Your task to perform on an android device: check battery use Image 0: 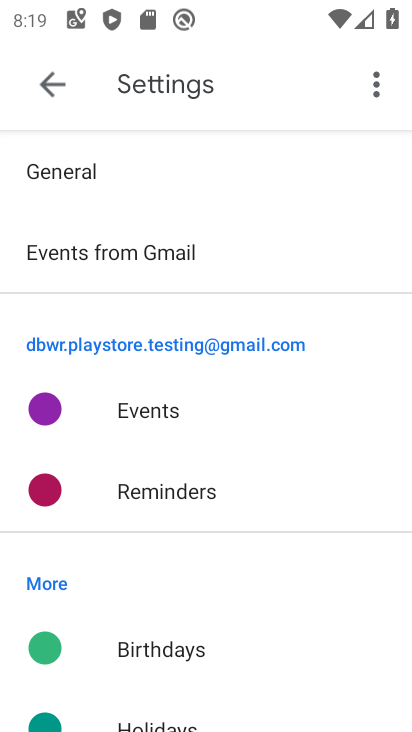
Step 0: press home button
Your task to perform on an android device: check battery use Image 1: 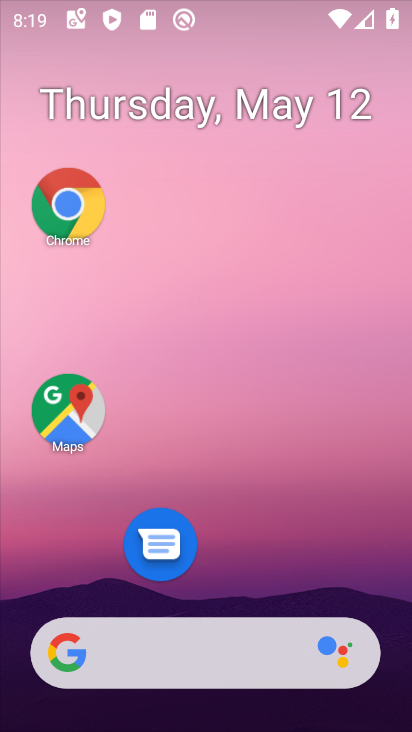
Step 1: drag from (205, 616) to (218, 0)
Your task to perform on an android device: check battery use Image 2: 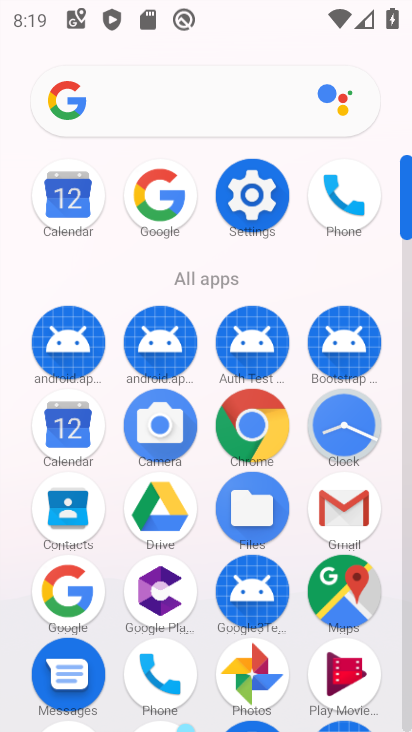
Step 2: click (256, 197)
Your task to perform on an android device: check battery use Image 3: 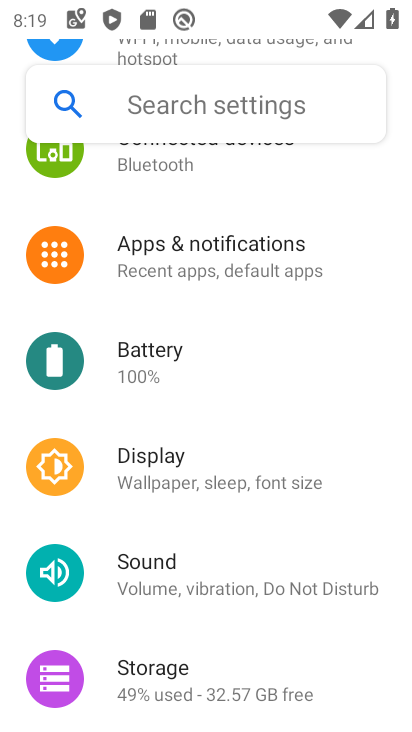
Step 3: click (235, 333)
Your task to perform on an android device: check battery use Image 4: 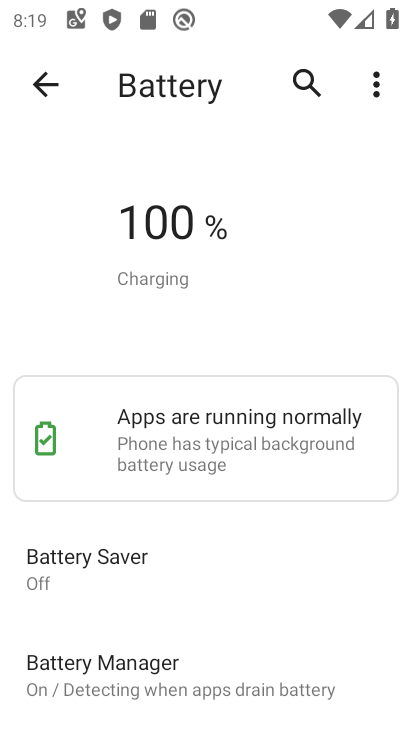
Step 4: click (366, 87)
Your task to perform on an android device: check battery use Image 5: 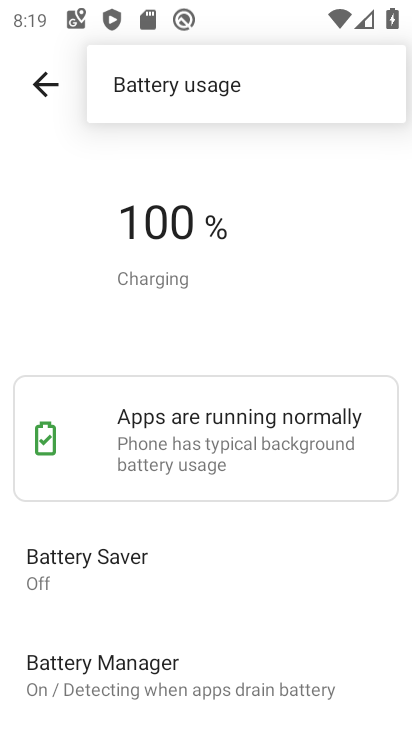
Step 5: click (253, 80)
Your task to perform on an android device: check battery use Image 6: 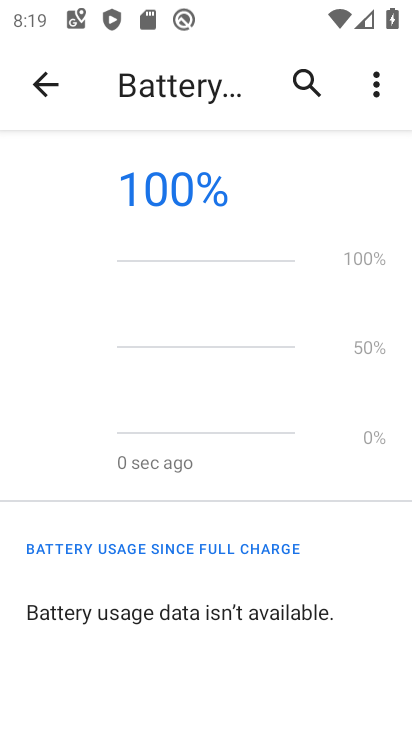
Step 6: task complete